Your task to perform on an android device: Open privacy settings Image 0: 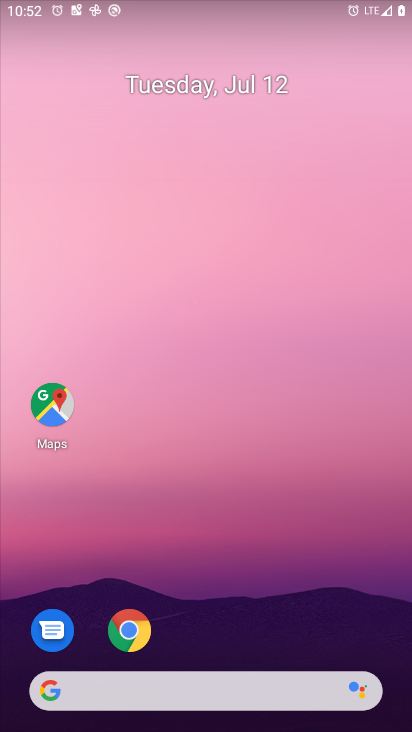
Step 0: press home button
Your task to perform on an android device: Open privacy settings Image 1: 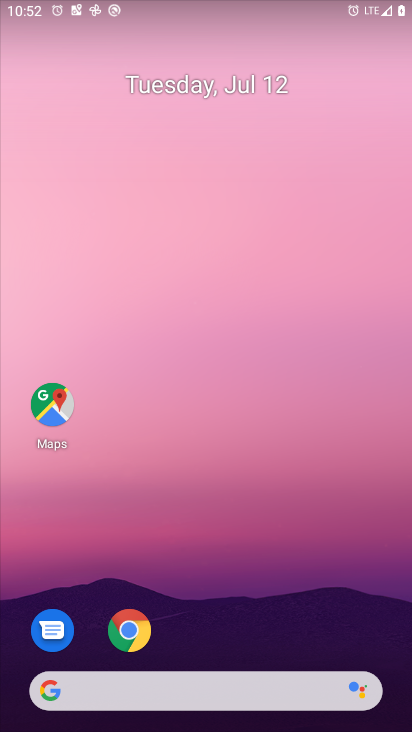
Step 1: drag from (290, 644) to (192, 25)
Your task to perform on an android device: Open privacy settings Image 2: 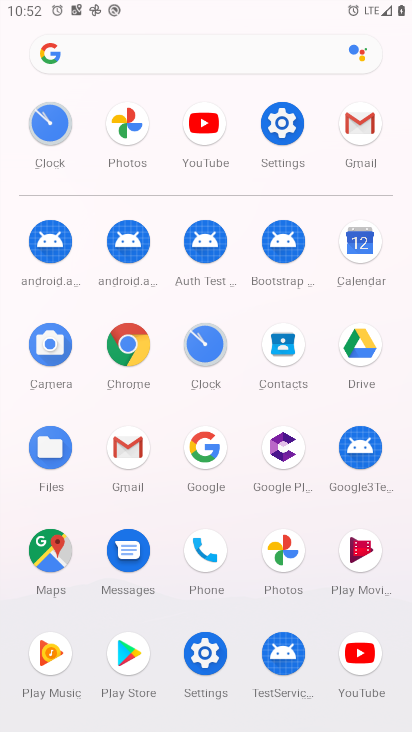
Step 2: click (280, 121)
Your task to perform on an android device: Open privacy settings Image 3: 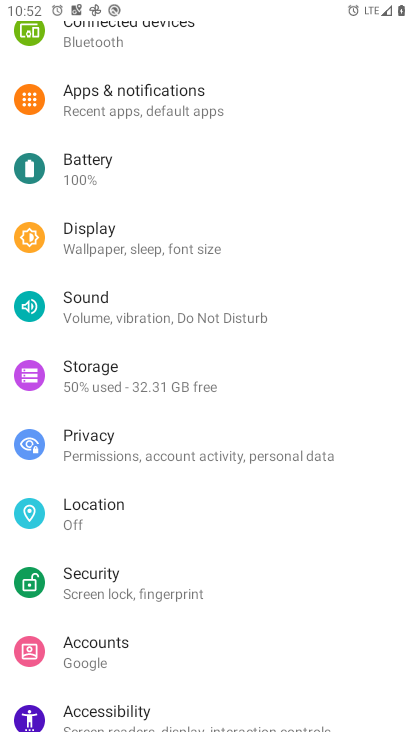
Step 3: click (108, 446)
Your task to perform on an android device: Open privacy settings Image 4: 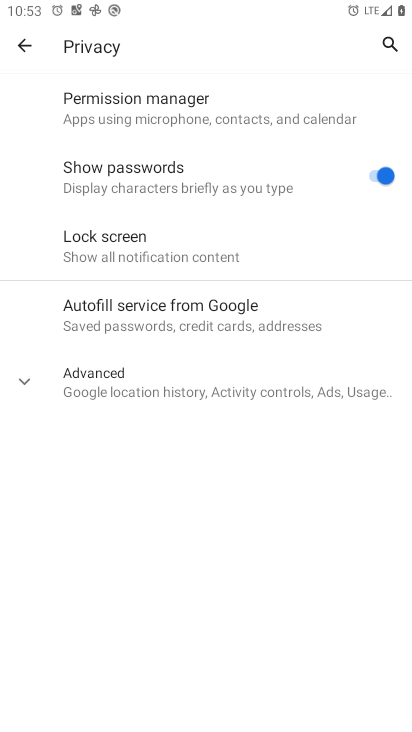
Step 4: task complete